Your task to perform on an android device: turn off priority inbox in the gmail app Image 0: 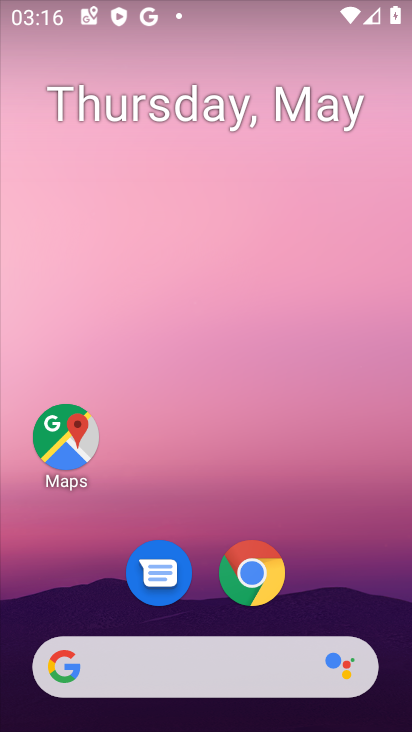
Step 0: drag from (337, 557) to (321, 282)
Your task to perform on an android device: turn off priority inbox in the gmail app Image 1: 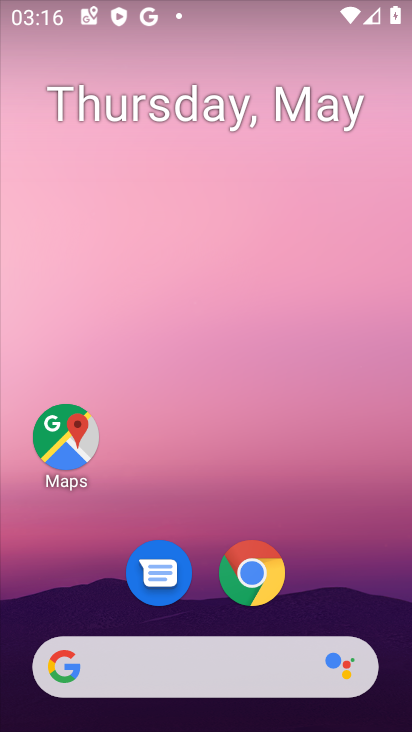
Step 1: drag from (294, 594) to (294, 220)
Your task to perform on an android device: turn off priority inbox in the gmail app Image 2: 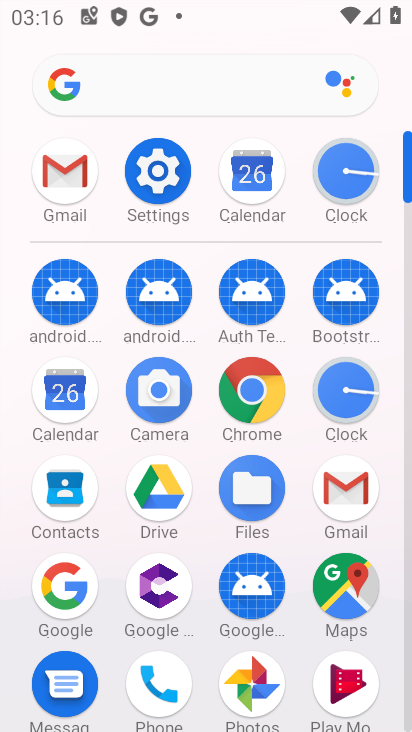
Step 2: click (61, 171)
Your task to perform on an android device: turn off priority inbox in the gmail app Image 3: 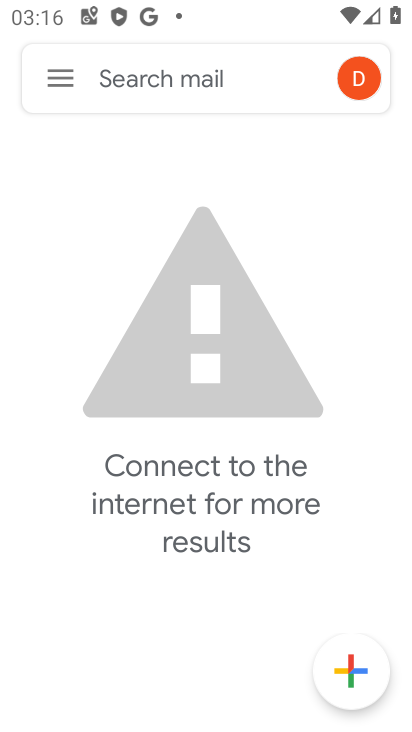
Step 3: click (50, 84)
Your task to perform on an android device: turn off priority inbox in the gmail app Image 4: 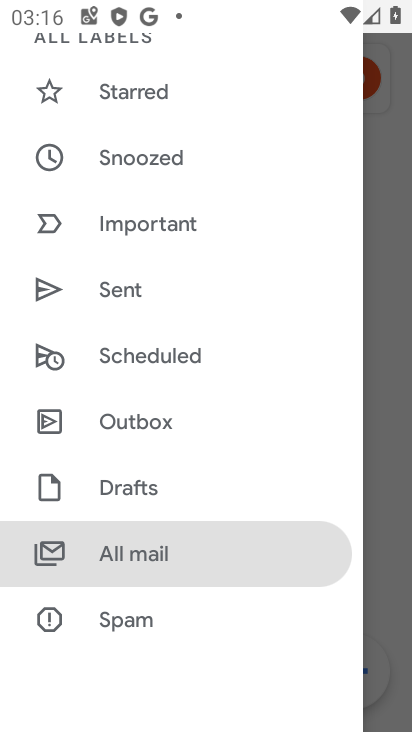
Step 4: drag from (181, 156) to (212, 609)
Your task to perform on an android device: turn off priority inbox in the gmail app Image 5: 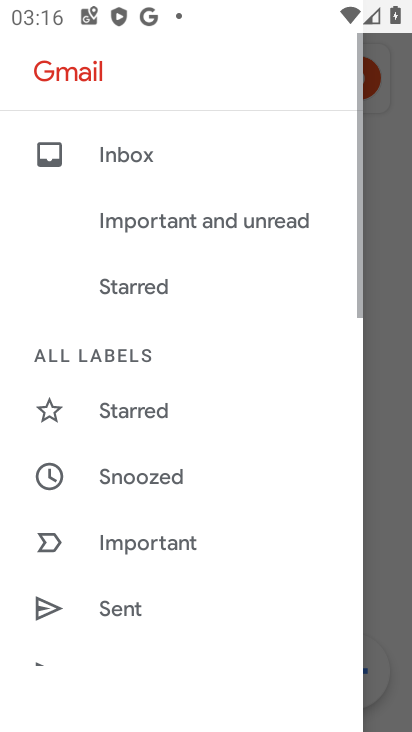
Step 5: drag from (178, 255) to (158, 640)
Your task to perform on an android device: turn off priority inbox in the gmail app Image 6: 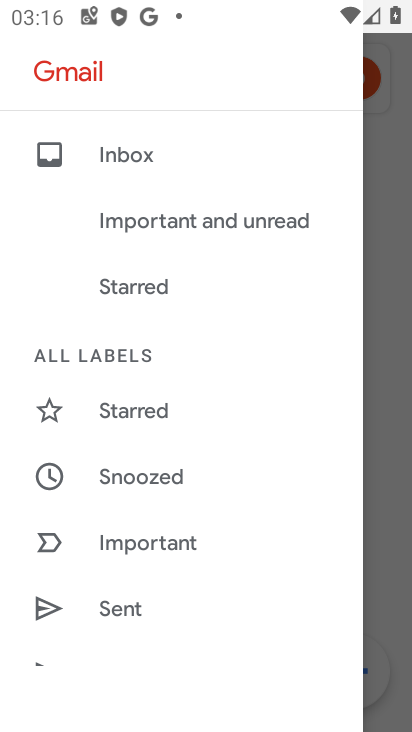
Step 6: drag from (145, 598) to (191, 186)
Your task to perform on an android device: turn off priority inbox in the gmail app Image 7: 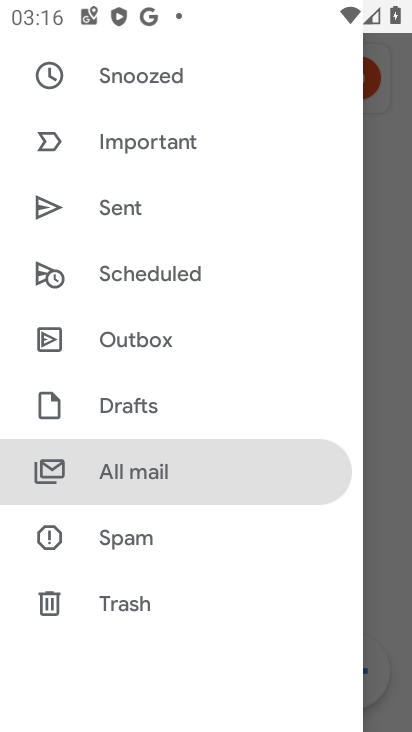
Step 7: drag from (206, 572) to (238, 123)
Your task to perform on an android device: turn off priority inbox in the gmail app Image 8: 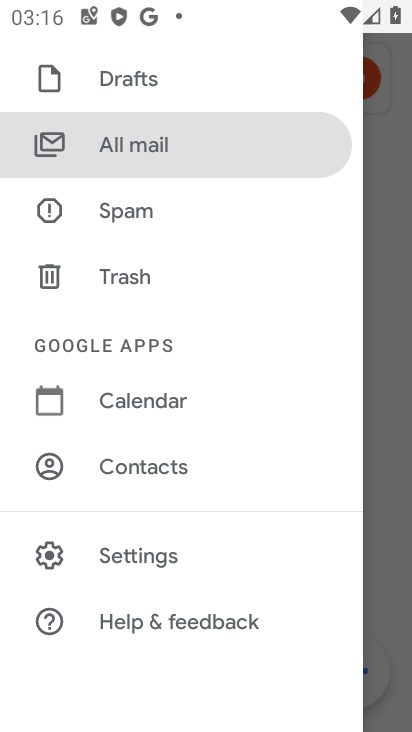
Step 8: click (164, 564)
Your task to perform on an android device: turn off priority inbox in the gmail app Image 9: 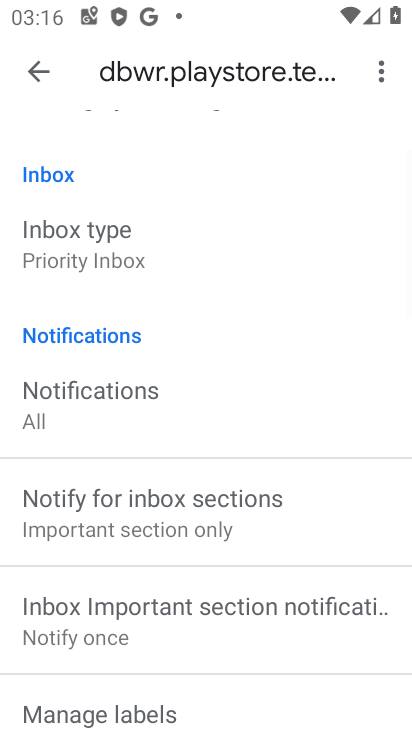
Step 9: click (118, 232)
Your task to perform on an android device: turn off priority inbox in the gmail app Image 10: 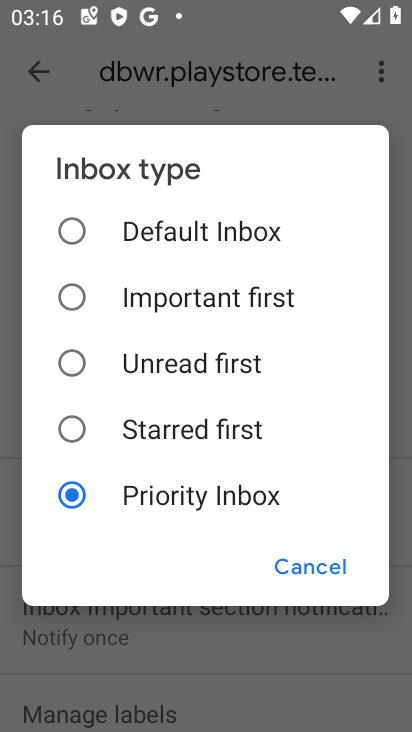
Step 10: click (187, 222)
Your task to perform on an android device: turn off priority inbox in the gmail app Image 11: 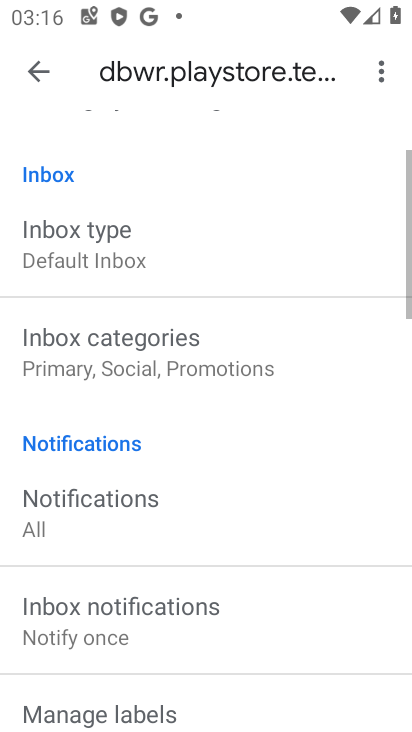
Step 11: task complete